Your task to perform on an android device: find photos in the google photos app Image 0: 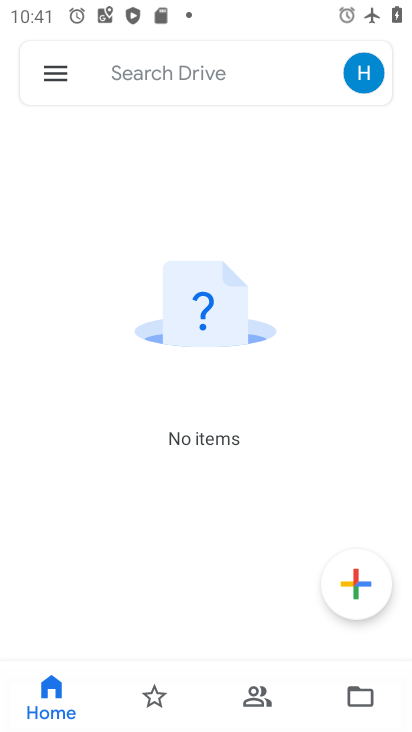
Step 0: press home button
Your task to perform on an android device: find photos in the google photos app Image 1: 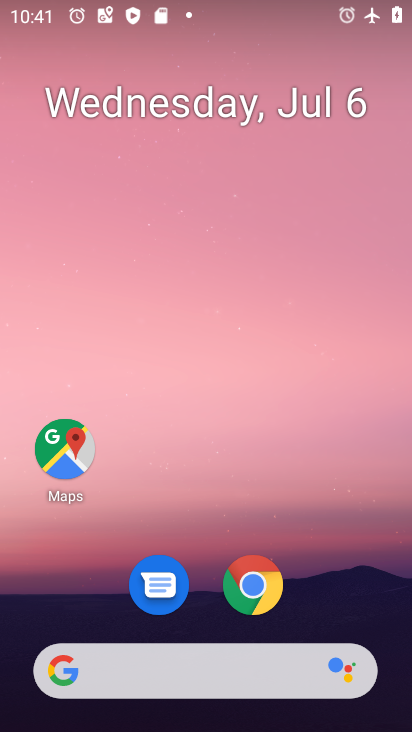
Step 1: drag from (213, 523) to (213, 23)
Your task to perform on an android device: find photos in the google photos app Image 2: 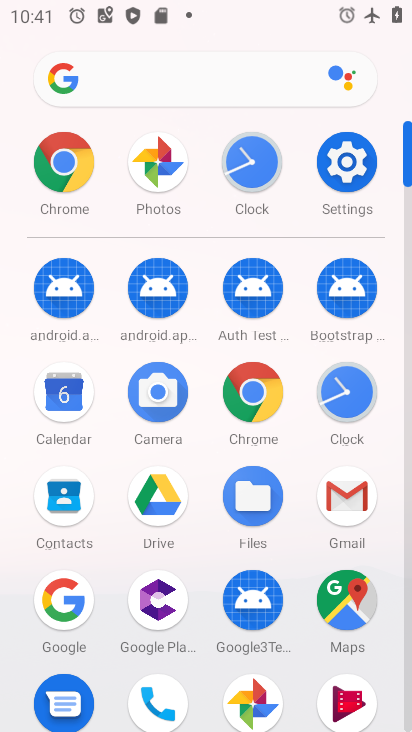
Step 2: click (166, 172)
Your task to perform on an android device: find photos in the google photos app Image 3: 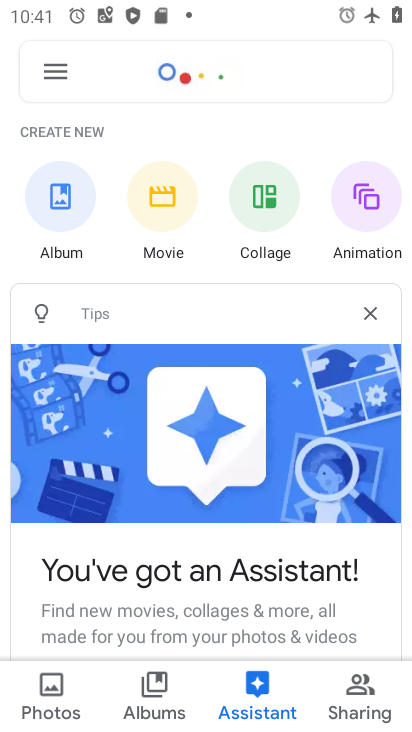
Step 3: click (47, 685)
Your task to perform on an android device: find photos in the google photos app Image 4: 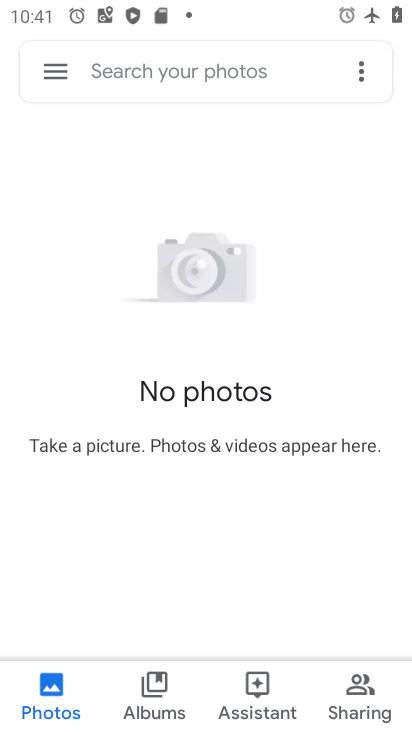
Step 4: task complete